Your task to perform on an android device: Show me popular games on the Play Store Image 0: 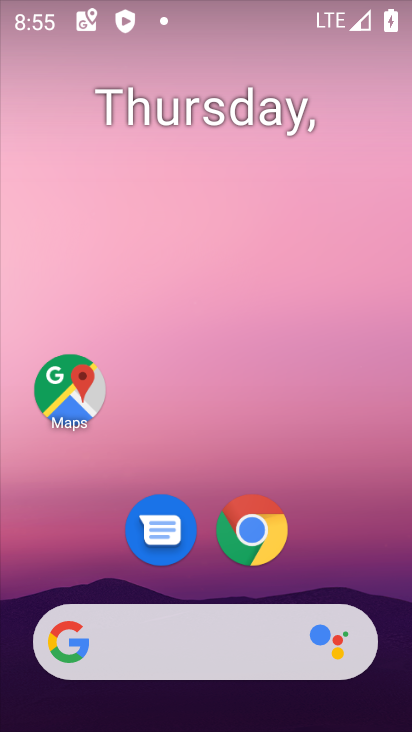
Step 0: drag from (290, 615) to (270, 24)
Your task to perform on an android device: Show me popular games on the Play Store Image 1: 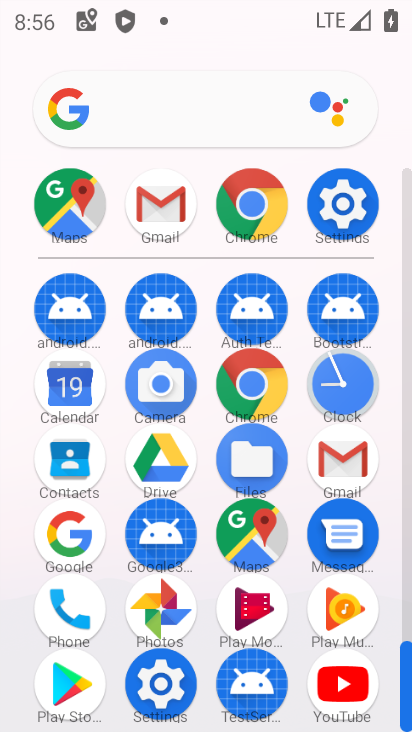
Step 1: drag from (246, 579) to (244, 399)
Your task to perform on an android device: Show me popular games on the Play Store Image 2: 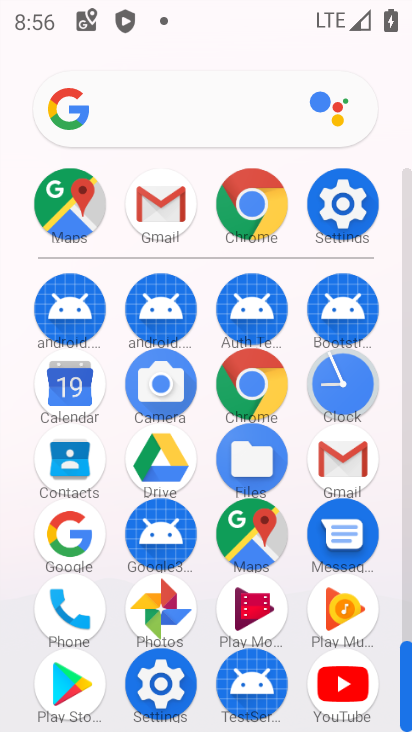
Step 2: click (84, 680)
Your task to perform on an android device: Show me popular games on the Play Store Image 3: 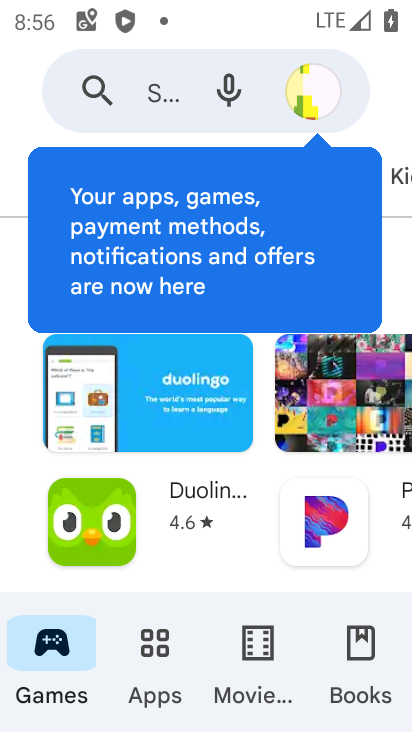
Step 3: task complete